Your task to perform on an android device: Open Chrome and go to settings Image 0: 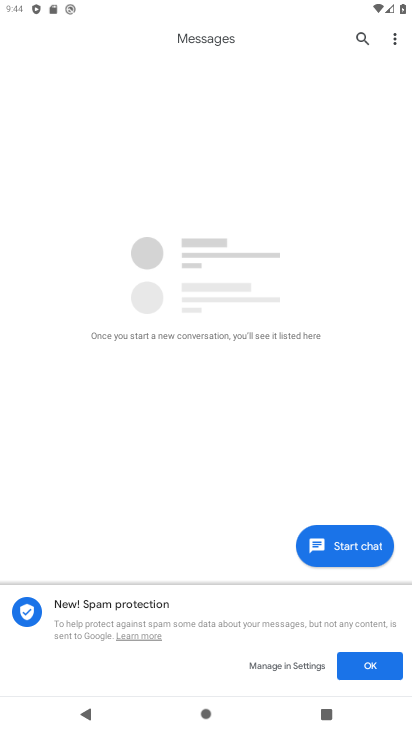
Step 0: press home button
Your task to perform on an android device: Open Chrome and go to settings Image 1: 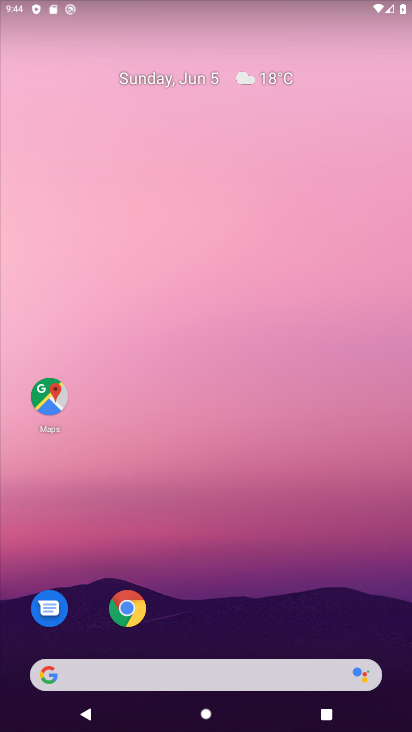
Step 1: click (112, 599)
Your task to perform on an android device: Open Chrome and go to settings Image 2: 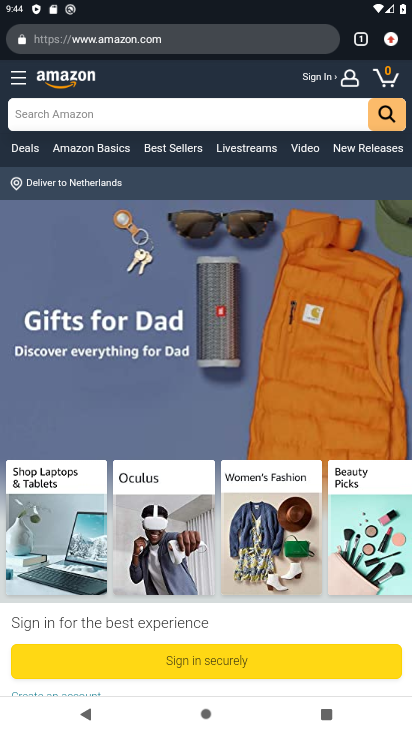
Step 2: task complete